Your task to perform on an android device: change the clock display to digital Image 0: 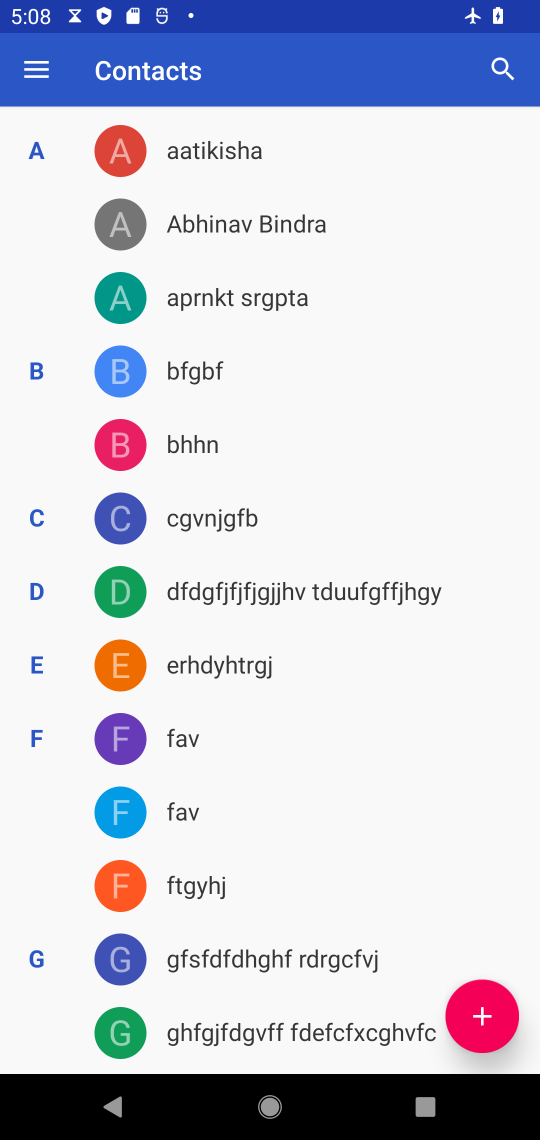
Step 0: press home button
Your task to perform on an android device: change the clock display to digital Image 1: 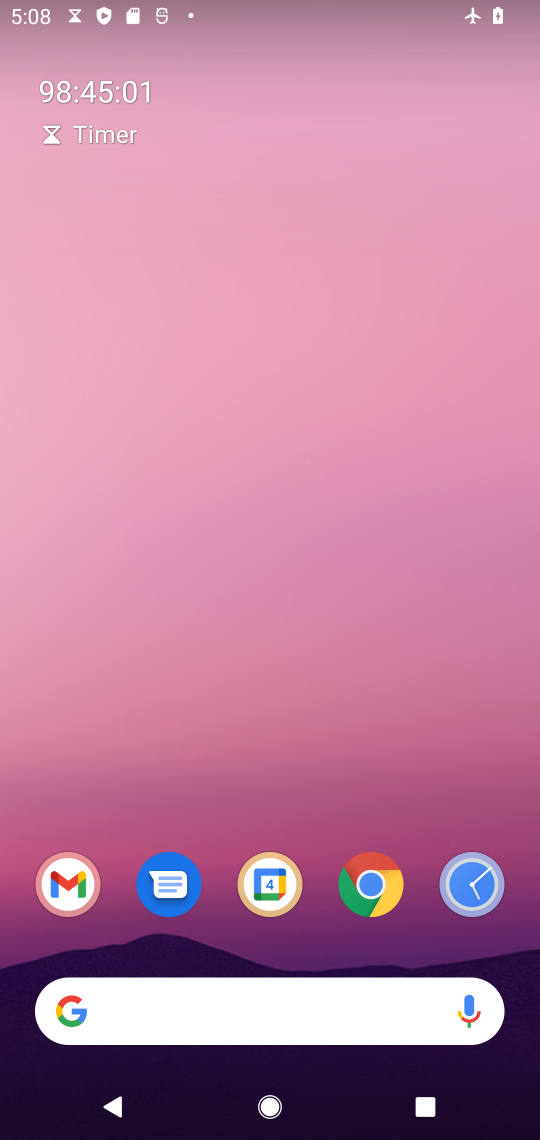
Step 1: drag from (278, 980) to (322, 269)
Your task to perform on an android device: change the clock display to digital Image 2: 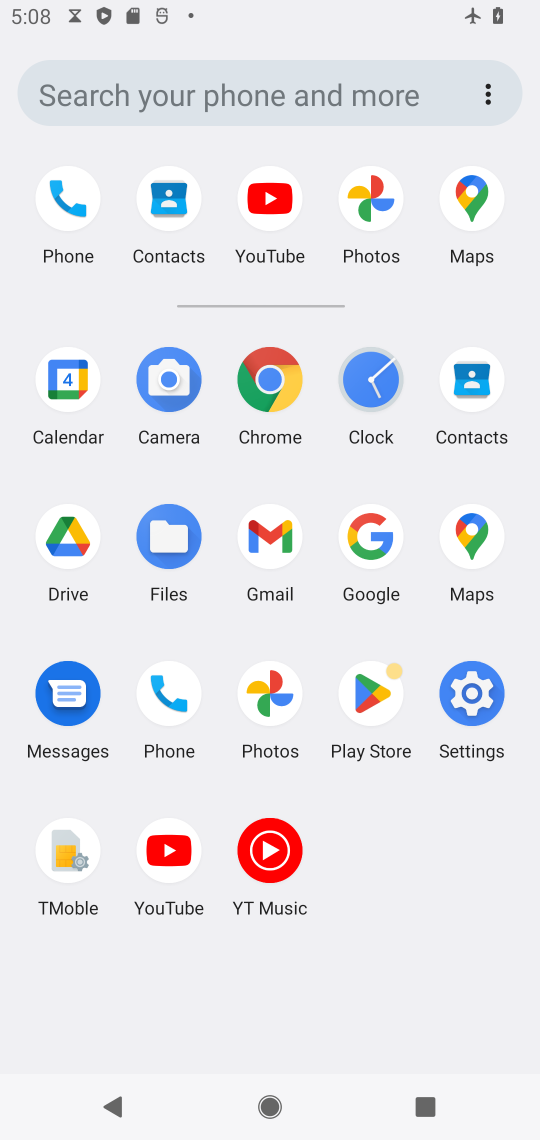
Step 2: click (384, 400)
Your task to perform on an android device: change the clock display to digital Image 3: 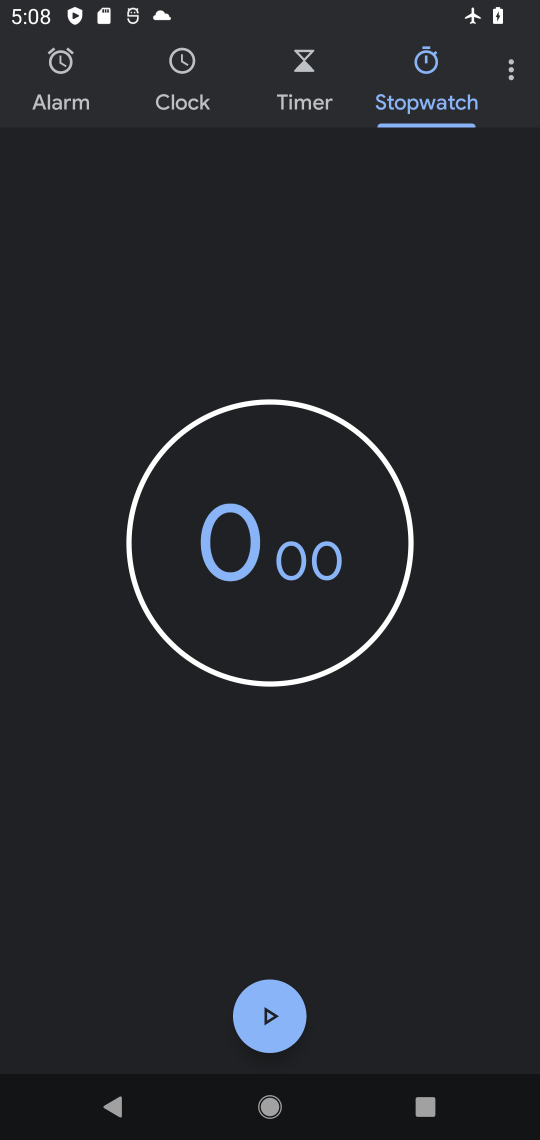
Step 3: click (504, 76)
Your task to perform on an android device: change the clock display to digital Image 4: 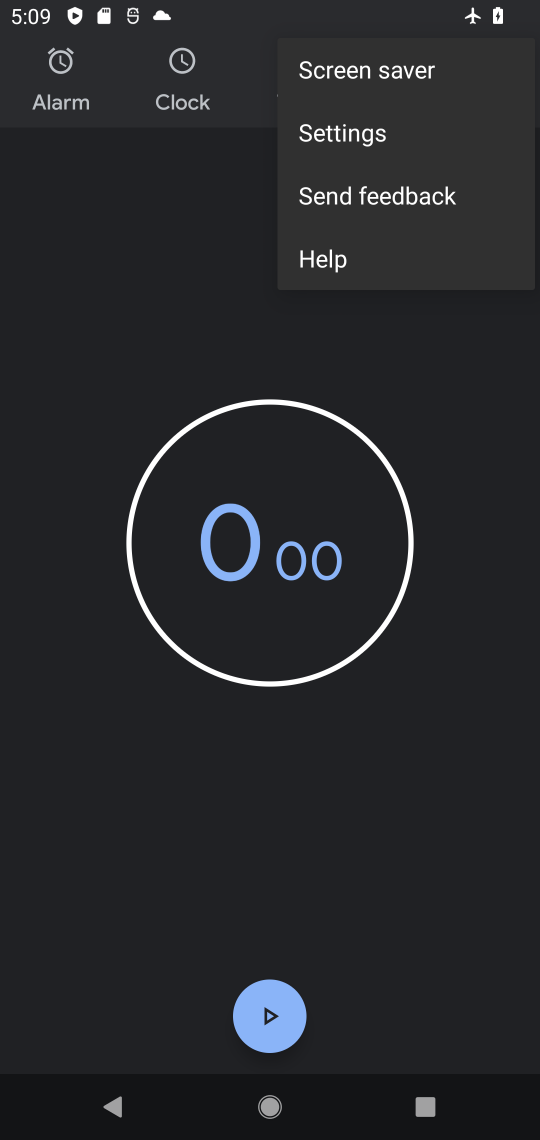
Step 4: click (336, 140)
Your task to perform on an android device: change the clock display to digital Image 5: 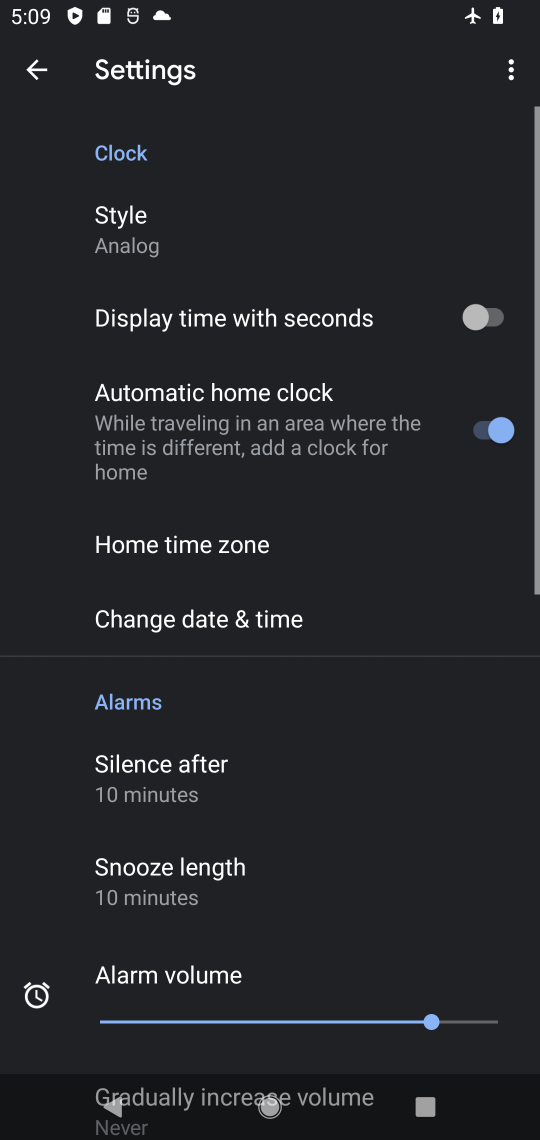
Step 5: click (160, 211)
Your task to perform on an android device: change the clock display to digital Image 6: 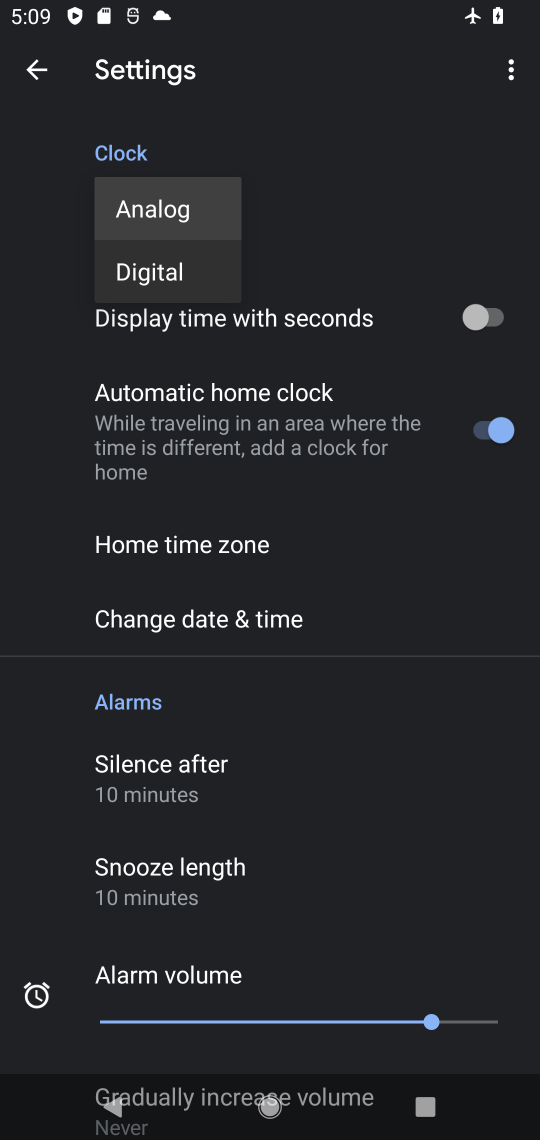
Step 6: click (162, 277)
Your task to perform on an android device: change the clock display to digital Image 7: 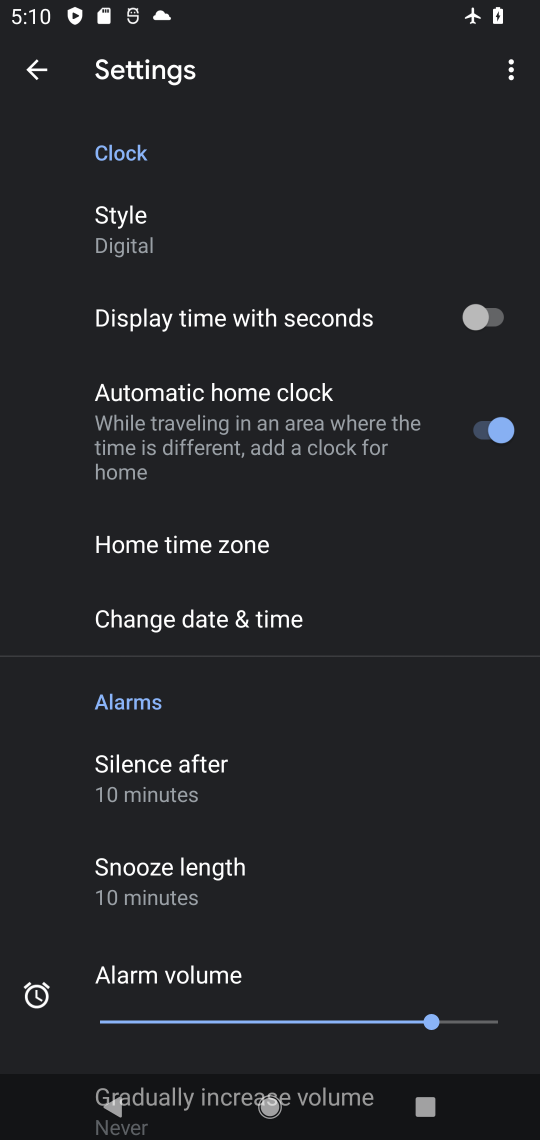
Step 7: task complete